Your task to perform on an android device: change keyboard looks Image 0: 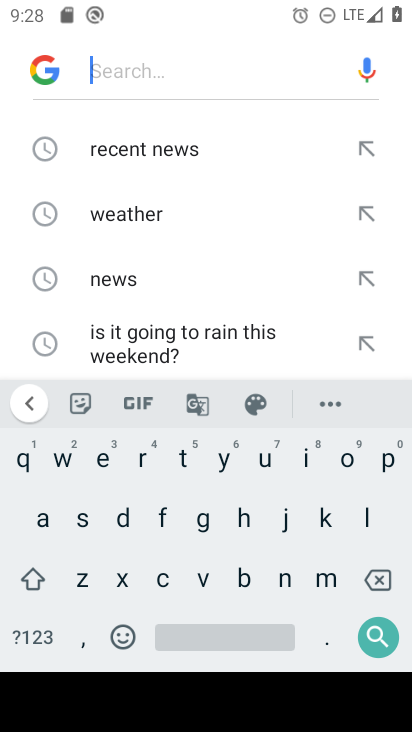
Step 0: press home button
Your task to perform on an android device: change keyboard looks Image 1: 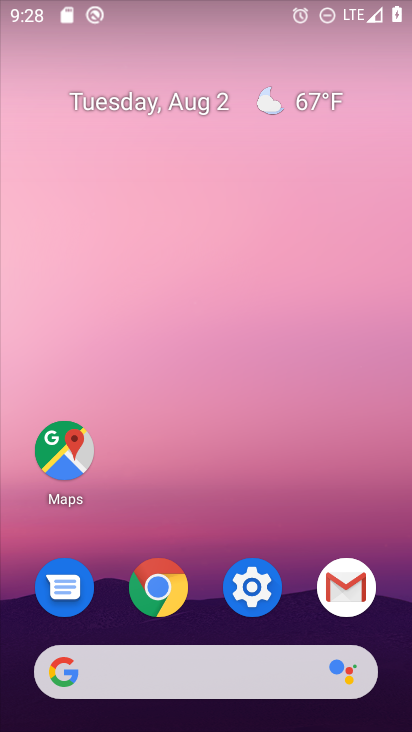
Step 1: click (260, 603)
Your task to perform on an android device: change keyboard looks Image 2: 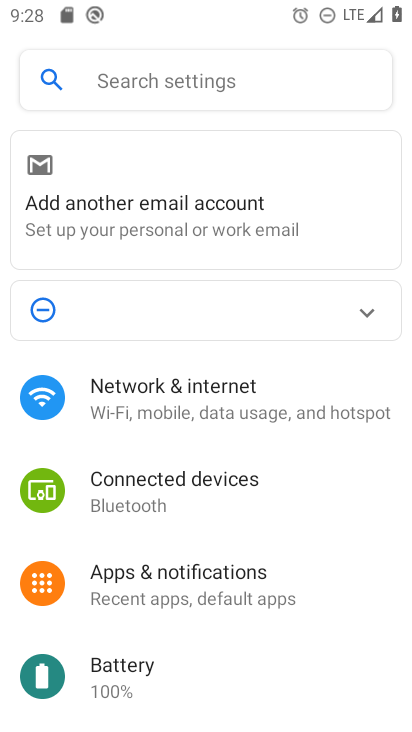
Step 2: click (180, 86)
Your task to perform on an android device: change keyboard looks Image 3: 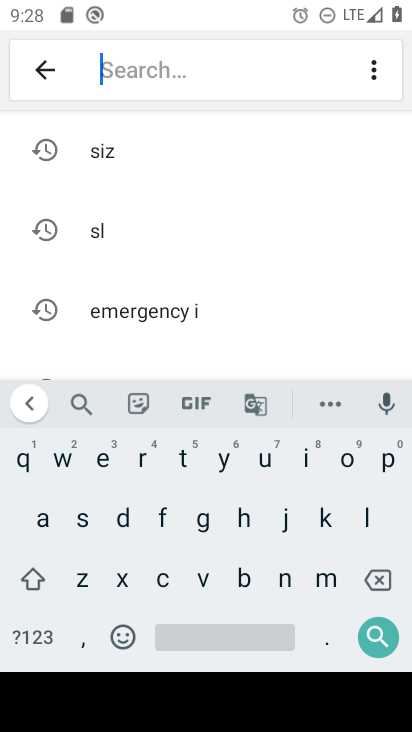
Step 3: click (328, 521)
Your task to perform on an android device: change keyboard looks Image 4: 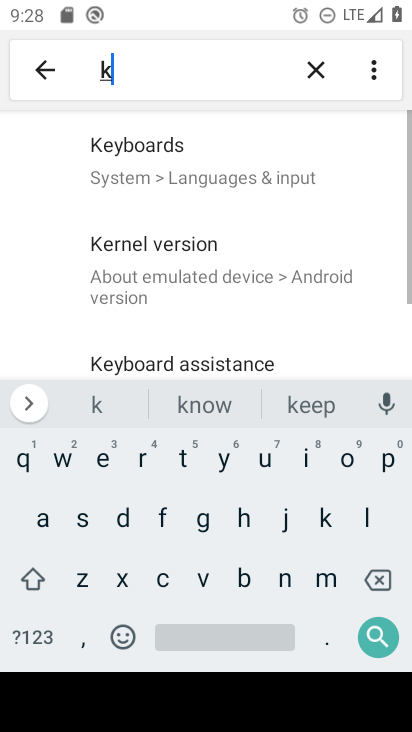
Step 4: click (152, 168)
Your task to perform on an android device: change keyboard looks Image 5: 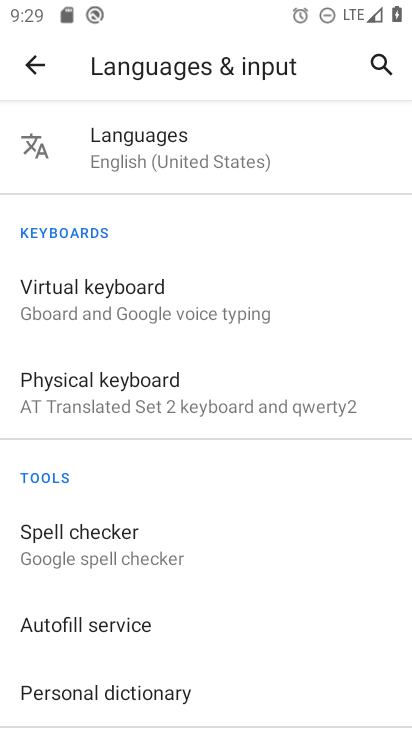
Step 5: task complete